Your task to perform on an android device: empty trash in the gmail app Image 0: 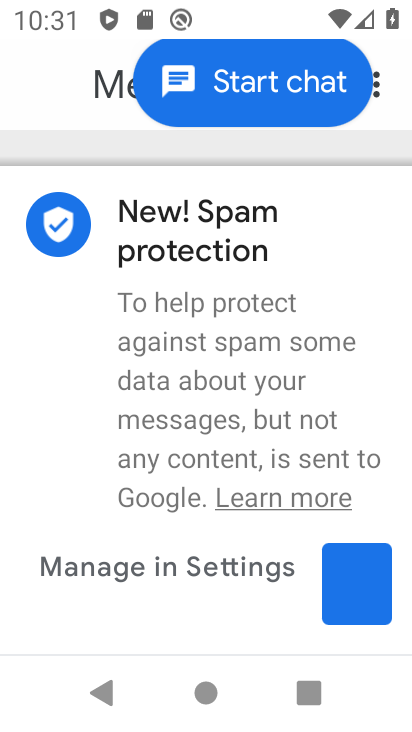
Step 0: press home button
Your task to perform on an android device: empty trash in the gmail app Image 1: 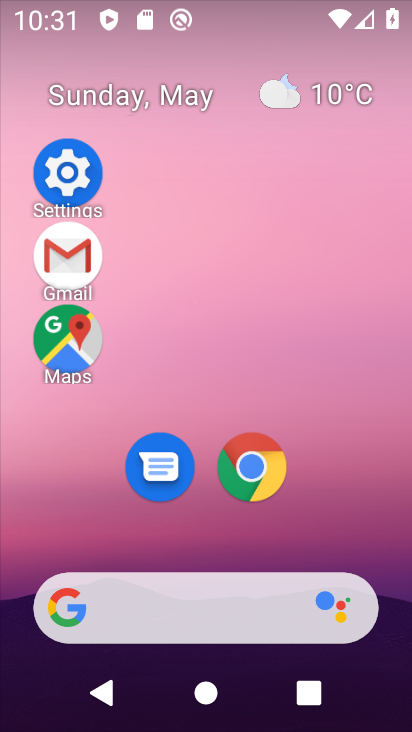
Step 1: click (57, 264)
Your task to perform on an android device: empty trash in the gmail app Image 2: 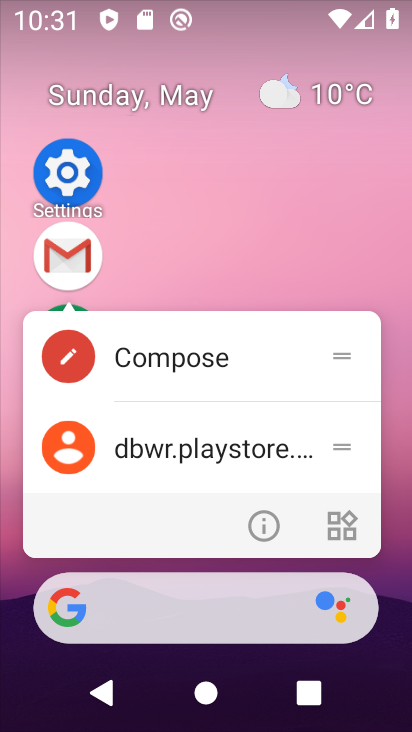
Step 2: click (86, 262)
Your task to perform on an android device: empty trash in the gmail app Image 3: 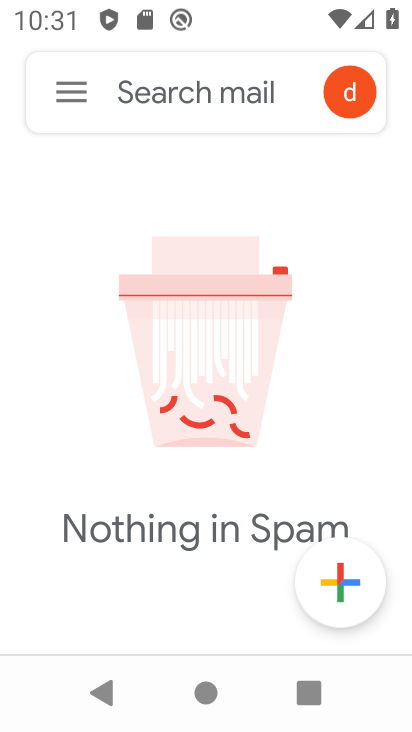
Step 3: click (84, 79)
Your task to perform on an android device: empty trash in the gmail app Image 4: 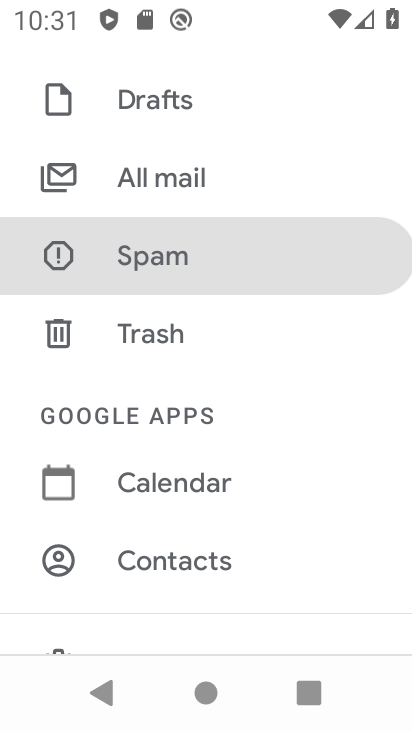
Step 4: click (149, 340)
Your task to perform on an android device: empty trash in the gmail app Image 5: 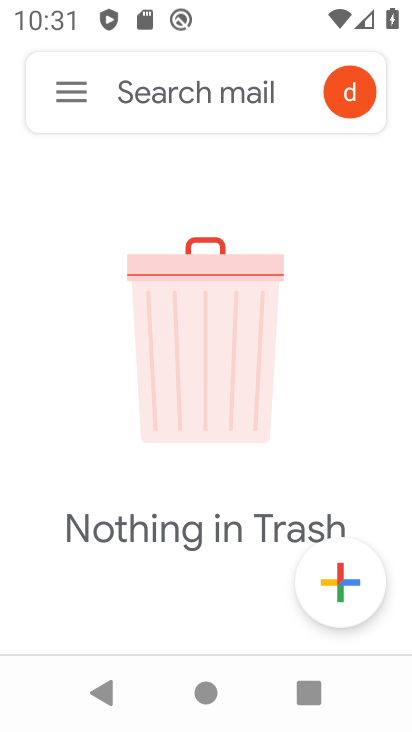
Step 5: task complete